Your task to perform on an android device: turn off data saver in the chrome app Image 0: 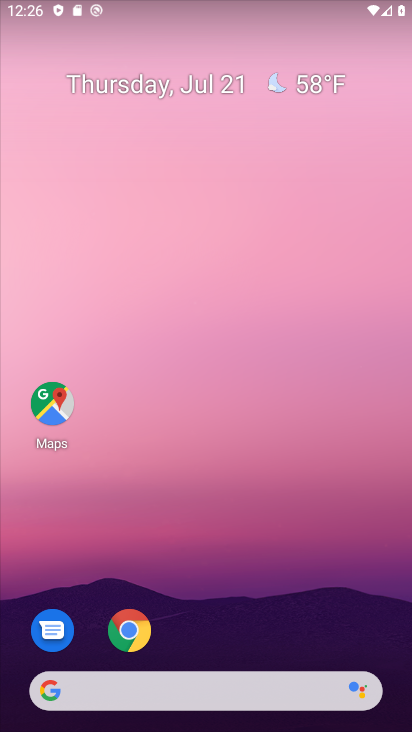
Step 0: click (125, 627)
Your task to perform on an android device: turn off data saver in the chrome app Image 1: 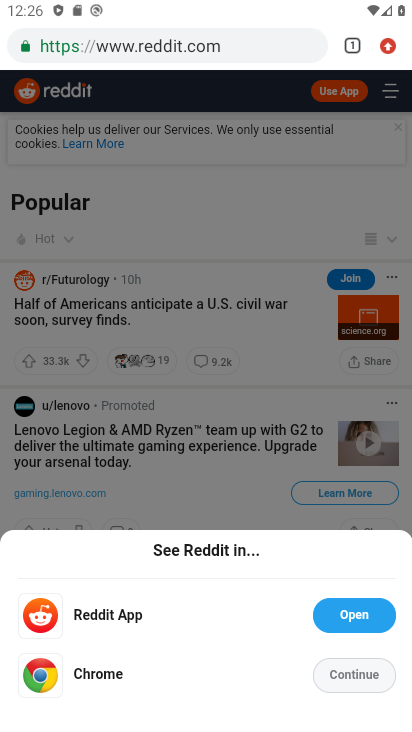
Step 1: click (385, 48)
Your task to perform on an android device: turn off data saver in the chrome app Image 2: 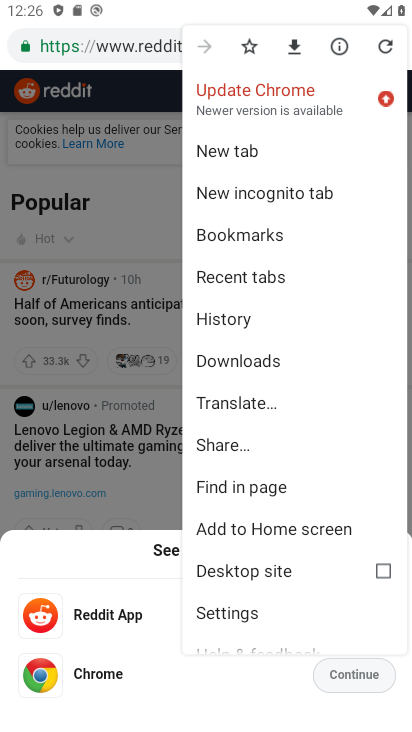
Step 2: click (220, 610)
Your task to perform on an android device: turn off data saver in the chrome app Image 3: 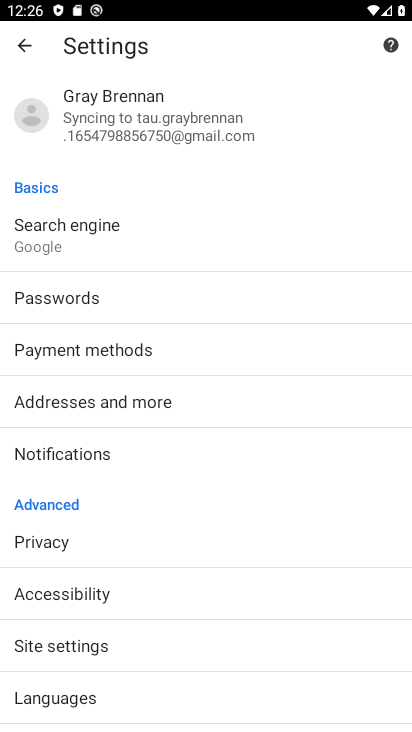
Step 3: drag from (159, 596) to (206, 136)
Your task to perform on an android device: turn off data saver in the chrome app Image 4: 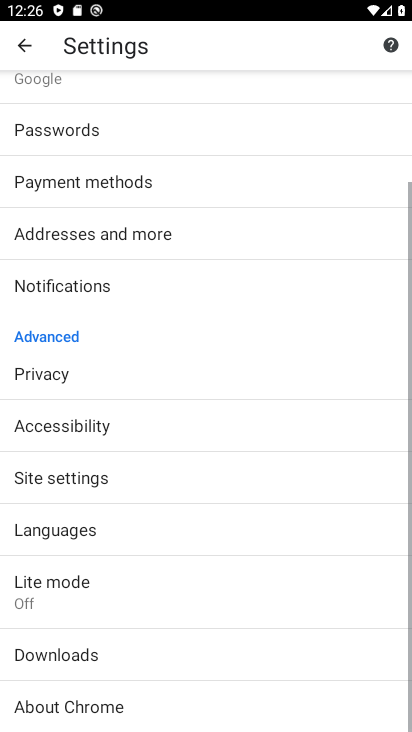
Step 4: click (76, 584)
Your task to perform on an android device: turn off data saver in the chrome app Image 5: 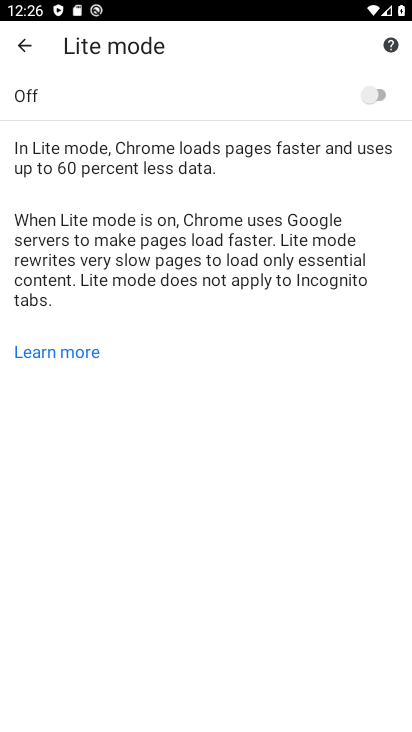
Step 5: task complete